Your task to perform on an android device: What is the news today? Image 0: 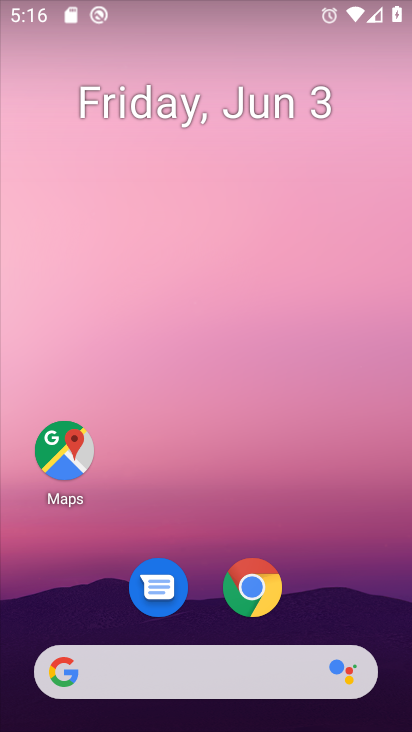
Step 0: click (193, 687)
Your task to perform on an android device: What is the news today? Image 1: 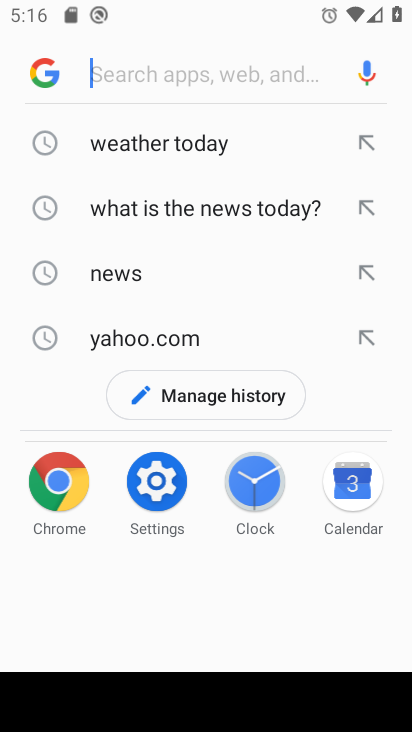
Step 1: click (117, 275)
Your task to perform on an android device: What is the news today? Image 2: 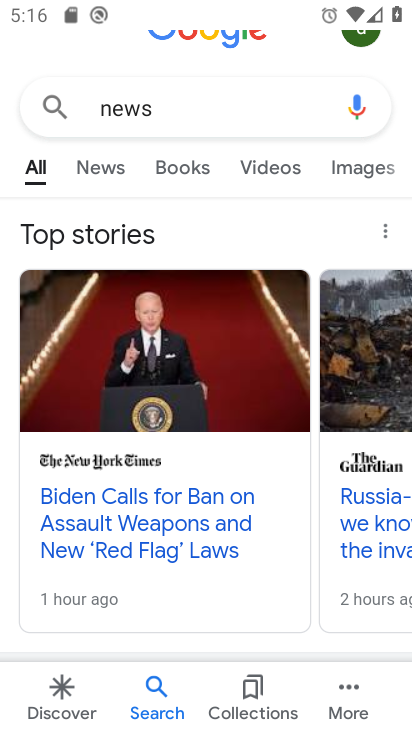
Step 2: drag from (298, 564) to (303, 156)
Your task to perform on an android device: What is the news today? Image 3: 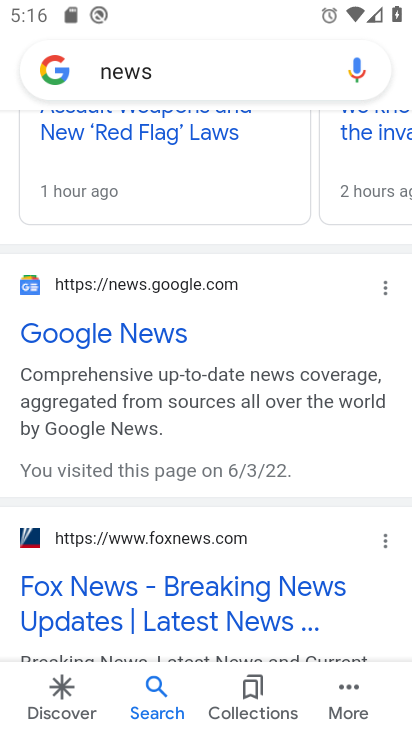
Step 3: click (265, 170)
Your task to perform on an android device: What is the news today? Image 4: 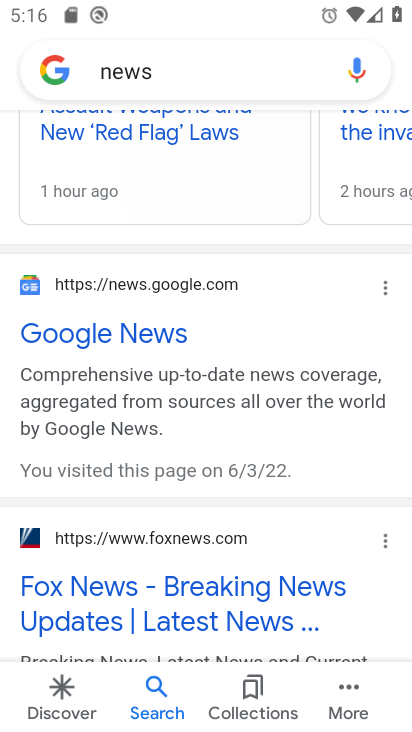
Step 4: click (173, 136)
Your task to perform on an android device: What is the news today? Image 5: 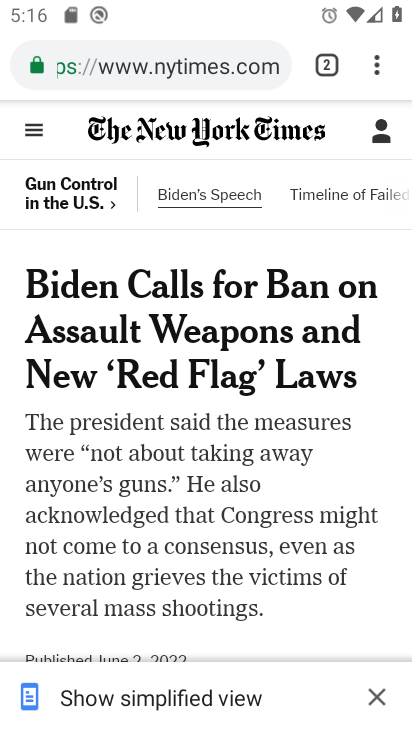
Step 5: click (381, 696)
Your task to perform on an android device: What is the news today? Image 6: 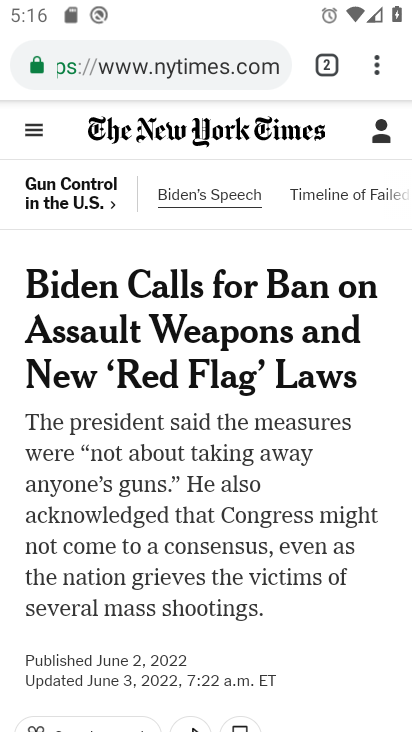
Step 6: task complete